Your task to perform on an android device: Open ESPN.com Image 0: 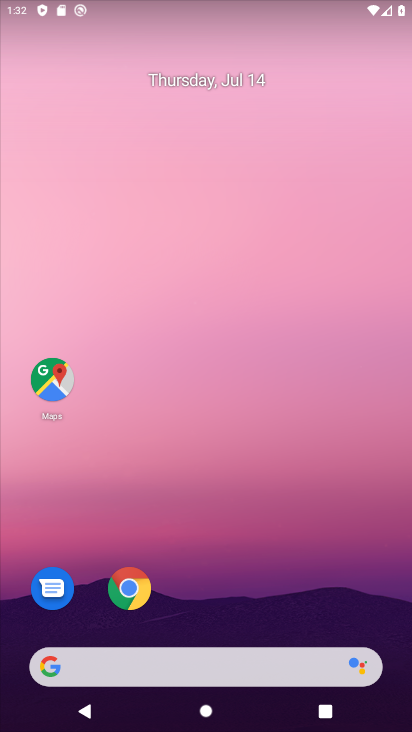
Step 0: click (154, 594)
Your task to perform on an android device: Open ESPN.com Image 1: 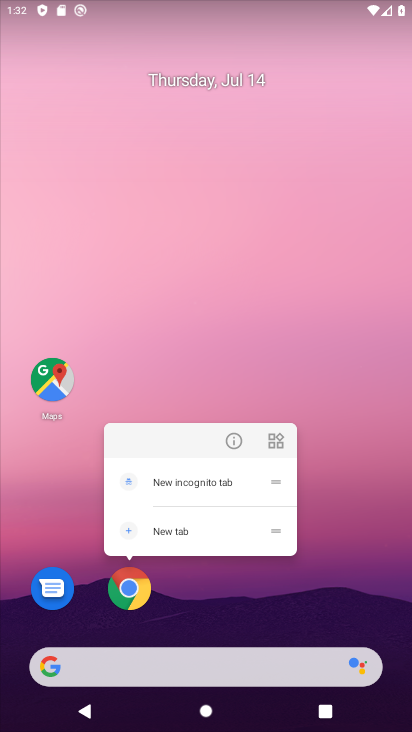
Step 1: click (131, 600)
Your task to perform on an android device: Open ESPN.com Image 2: 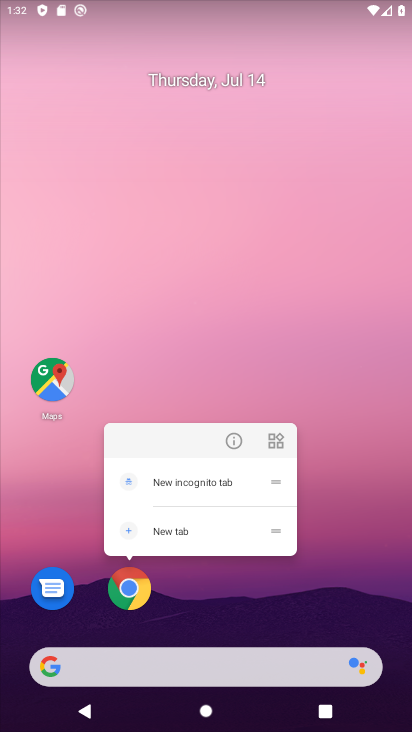
Step 2: click (131, 600)
Your task to perform on an android device: Open ESPN.com Image 3: 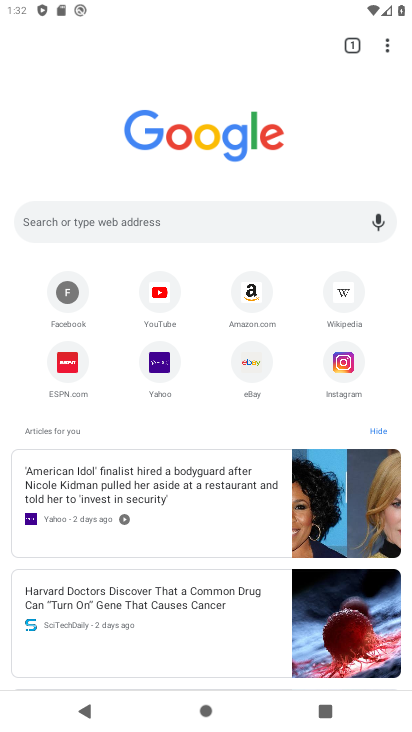
Step 3: click (78, 363)
Your task to perform on an android device: Open ESPN.com Image 4: 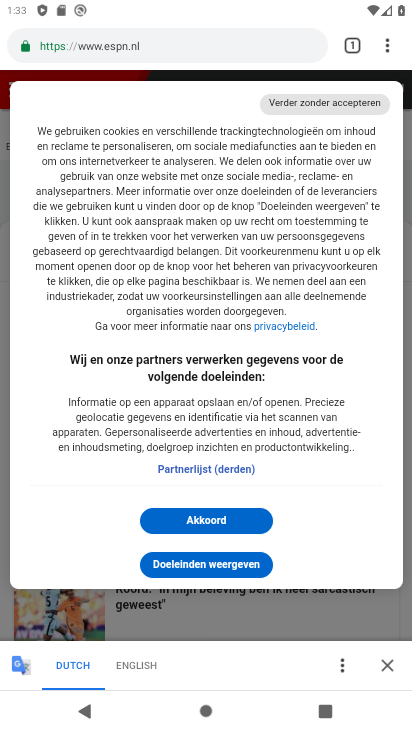
Step 4: click (382, 663)
Your task to perform on an android device: Open ESPN.com Image 5: 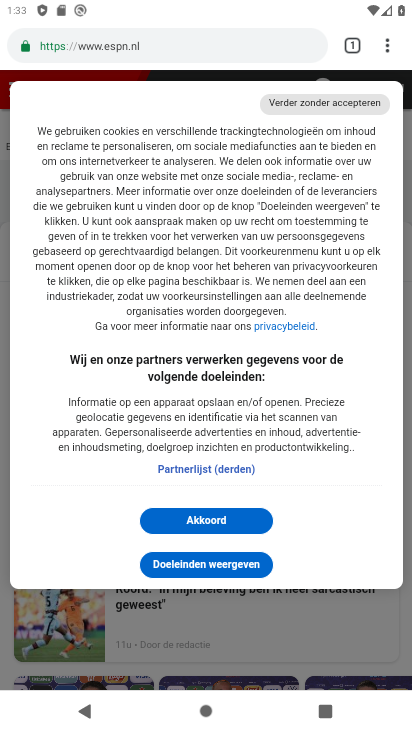
Step 5: task complete